Your task to perform on an android device: Open the Play Movies app and select the watchlist tab. Image 0: 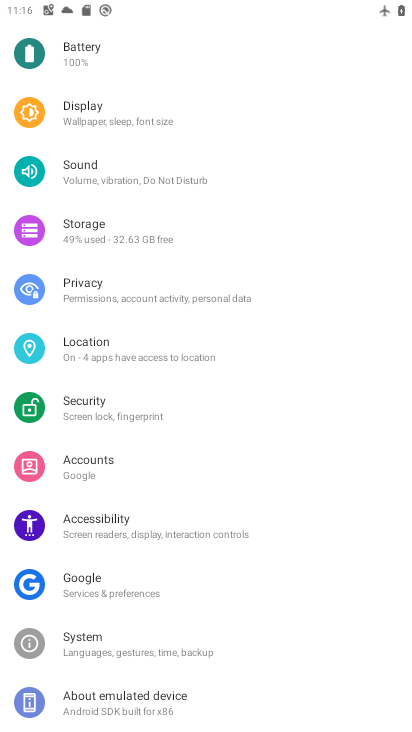
Step 0: press home button
Your task to perform on an android device: Open the Play Movies app and select the watchlist tab. Image 1: 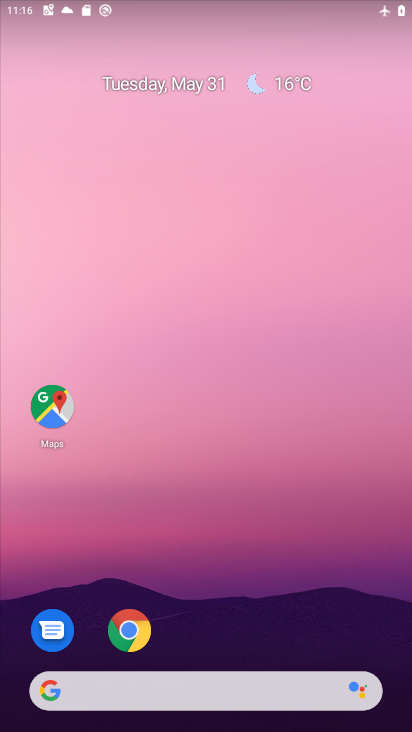
Step 1: drag from (242, 505) to (225, 179)
Your task to perform on an android device: Open the Play Movies app and select the watchlist tab. Image 2: 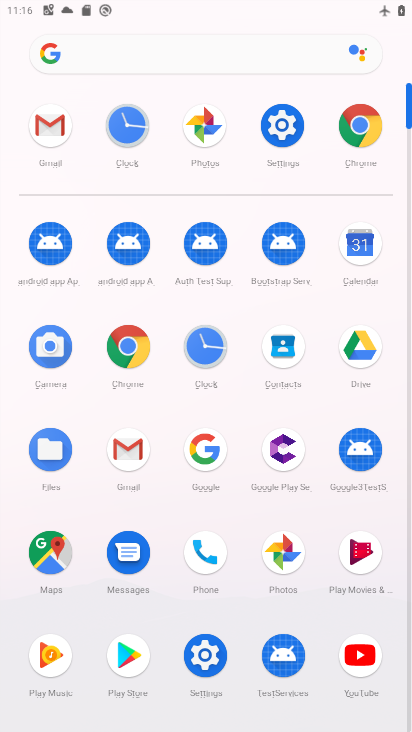
Step 2: click (362, 556)
Your task to perform on an android device: Open the Play Movies app and select the watchlist tab. Image 3: 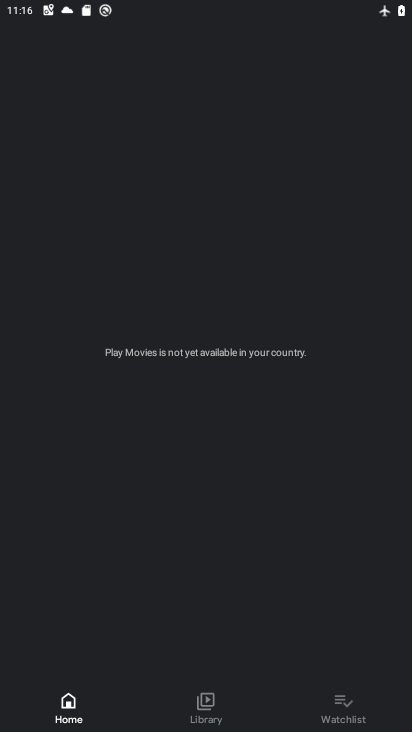
Step 3: click (341, 707)
Your task to perform on an android device: Open the Play Movies app and select the watchlist tab. Image 4: 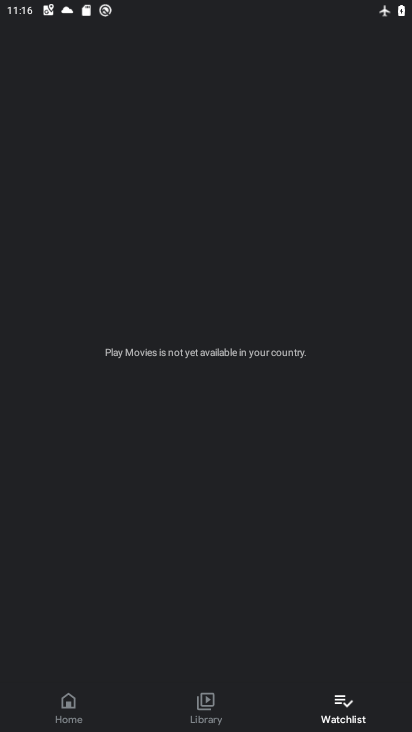
Step 4: task complete